Your task to perform on an android device: turn on bluetooth scan Image 0: 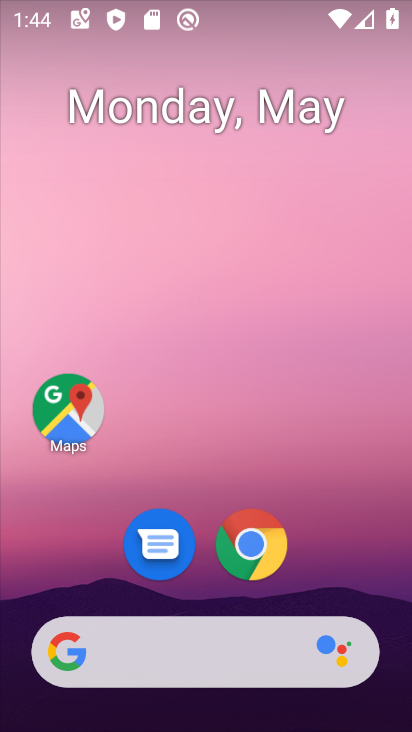
Step 0: drag from (368, 585) to (364, 266)
Your task to perform on an android device: turn on bluetooth scan Image 1: 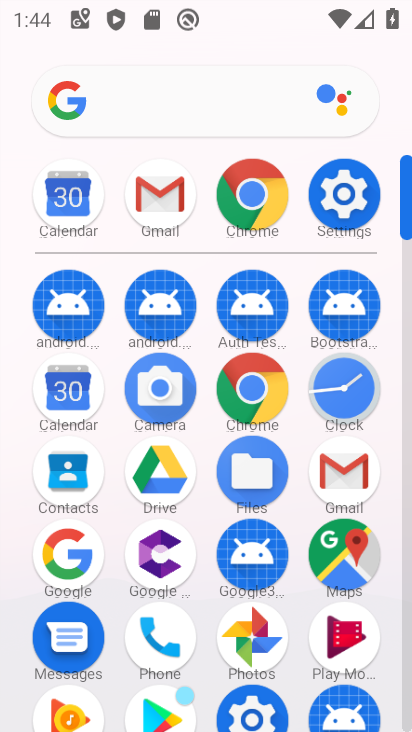
Step 1: click (348, 207)
Your task to perform on an android device: turn on bluetooth scan Image 2: 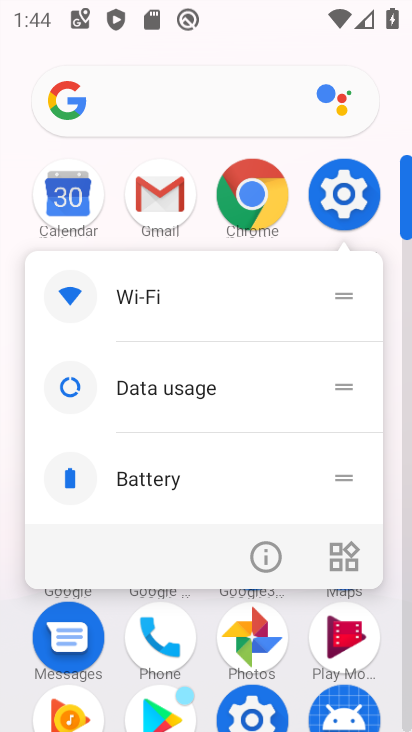
Step 2: click (348, 207)
Your task to perform on an android device: turn on bluetooth scan Image 3: 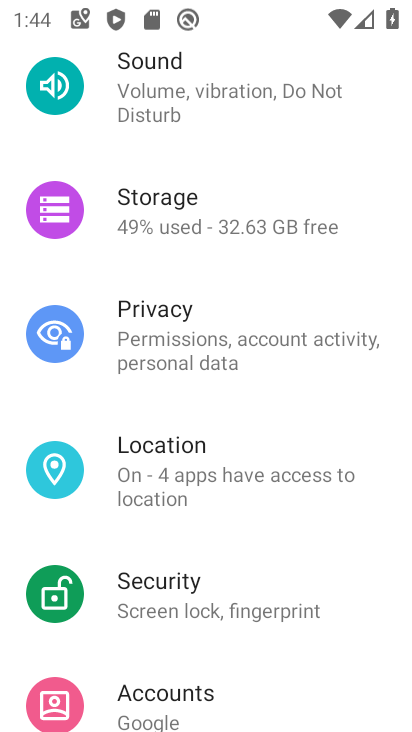
Step 3: drag from (368, 176) to (358, 287)
Your task to perform on an android device: turn on bluetooth scan Image 4: 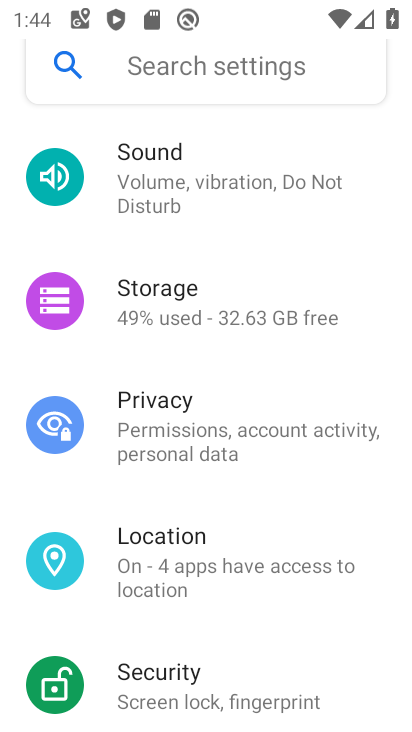
Step 4: drag from (354, 130) to (359, 355)
Your task to perform on an android device: turn on bluetooth scan Image 5: 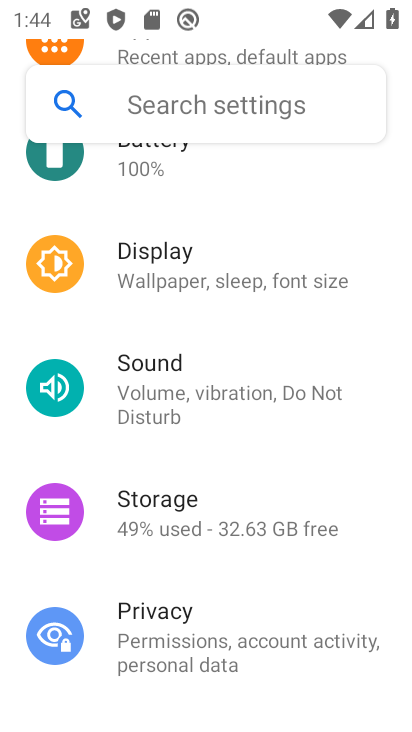
Step 5: drag from (358, 215) to (355, 347)
Your task to perform on an android device: turn on bluetooth scan Image 6: 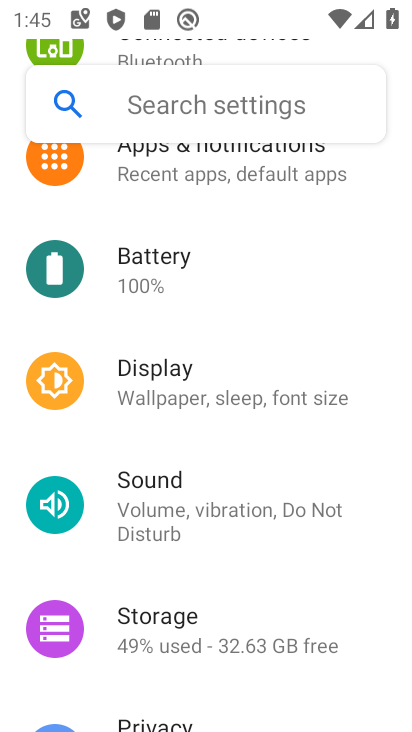
Step 6: drag from (363, 190) to (360, 315)
Your task to perform on an android device: turn on bluetooth scan Image 7: 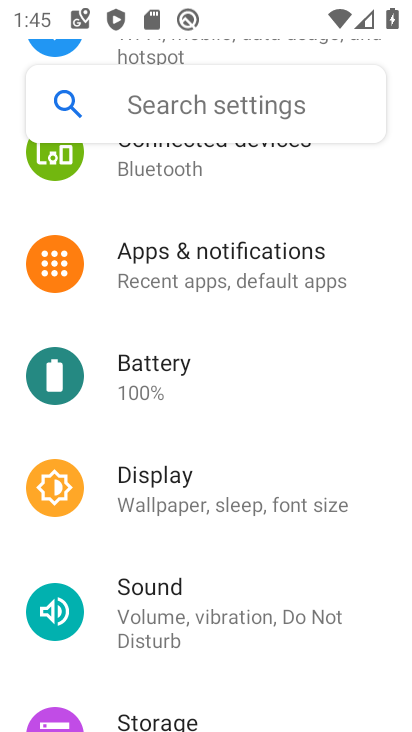
Step 7: drag from (346, 190) to (345, 348)
Your task to perform on an android device: turn on bluetooth scan Image 8: 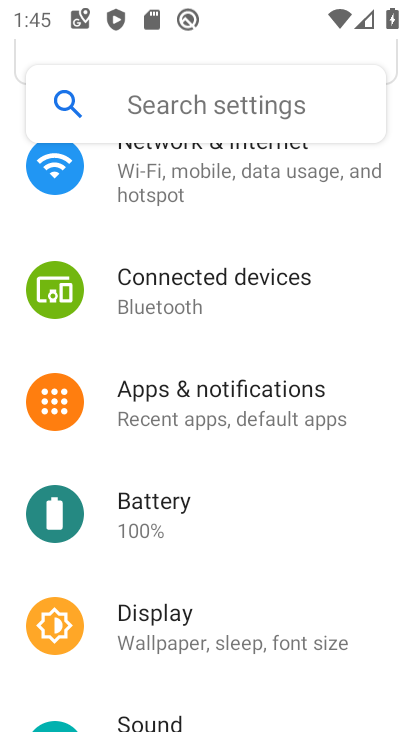
Step 8: drag from (343, 195) to (330, 365)
Your task to perform on an android device: turn on bluetooth scan Image 9: 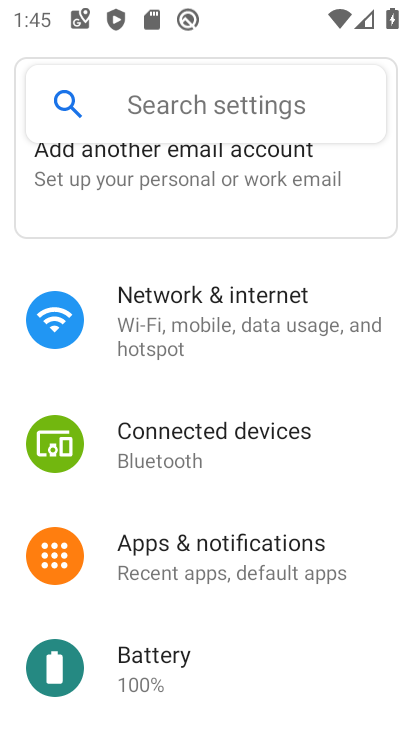
Step 9: drag from (331, 396) to (334, 263)
Your task to perform on an android device: turn on bluetooth scan Image 10: 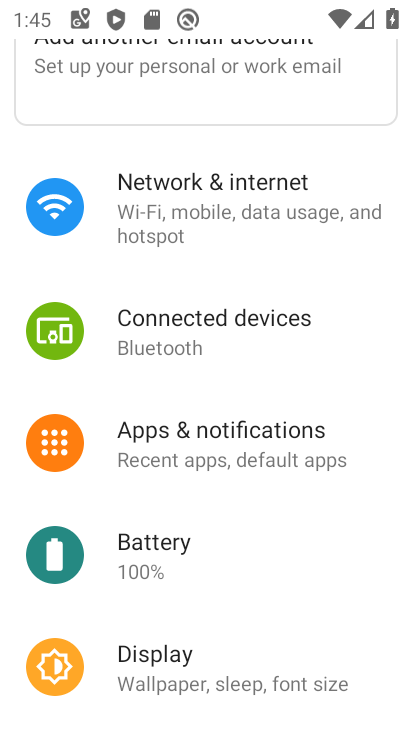
Step 10: drag from (329, 400) to (338, 212)
Your task to perform on an android device: turn on bluetooth scan Image 11: 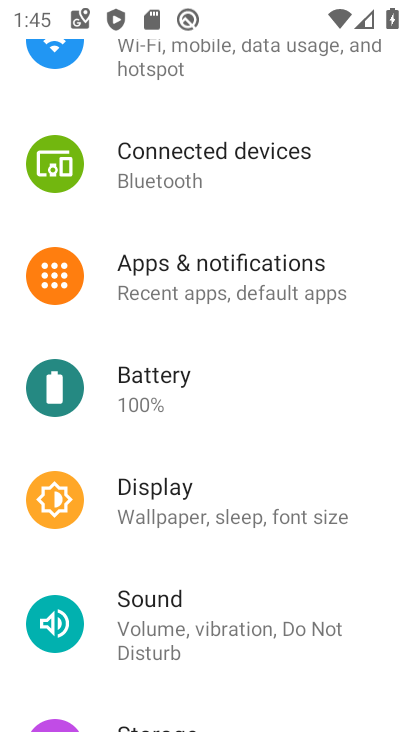
Step 11: drag from (321, 424) to (334, 329)
Your task to perform on an android device: turn on bluetooth scan Image 12: 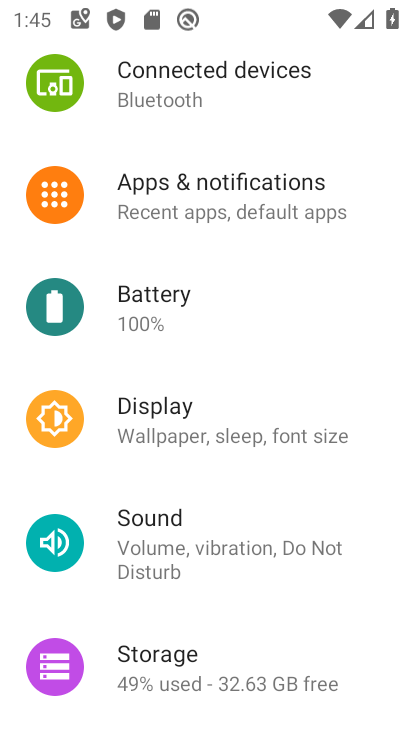
Step 12: drag from (322, 477) to (327, 355)
Your task to perform on an android device: turn on bluetooth scan Image 13: 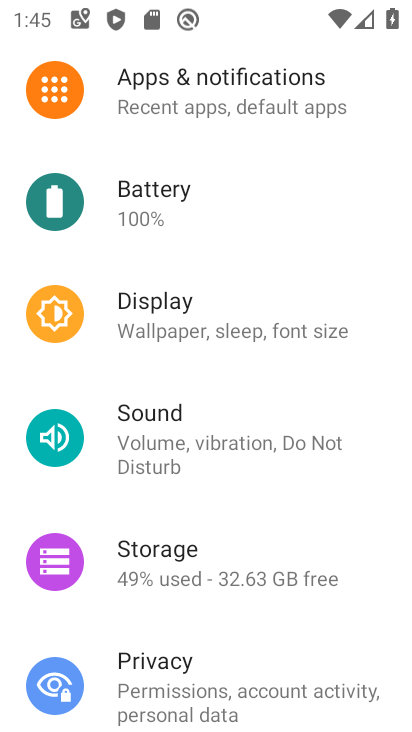
Step 13: drag from (323, 500) to (334, 387)
Your task to perform on an android device: turn on bluetooth scan Image 14: 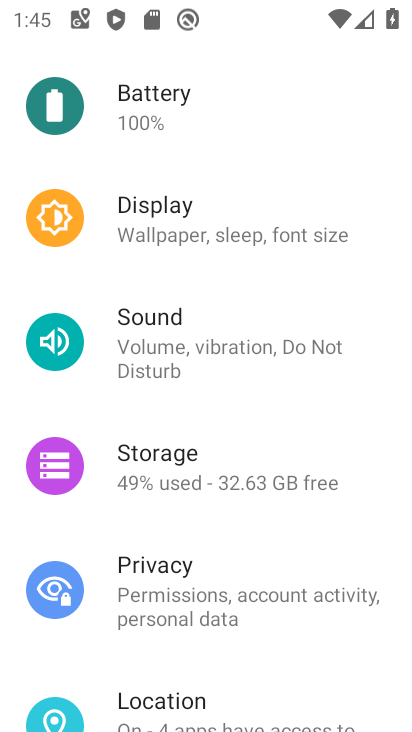
Step 14: drag from (323, 527) to (331, 411)
Your task to perform on an android device: turn on bluetooth scan Image 15: 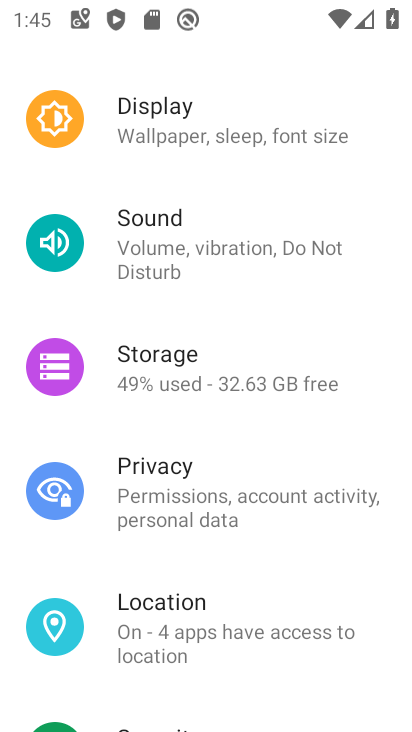
Step 15: drag from (329, 567) to (334, 438)
Your task to perform on an android device: turn on bluetooth scan Image 16: 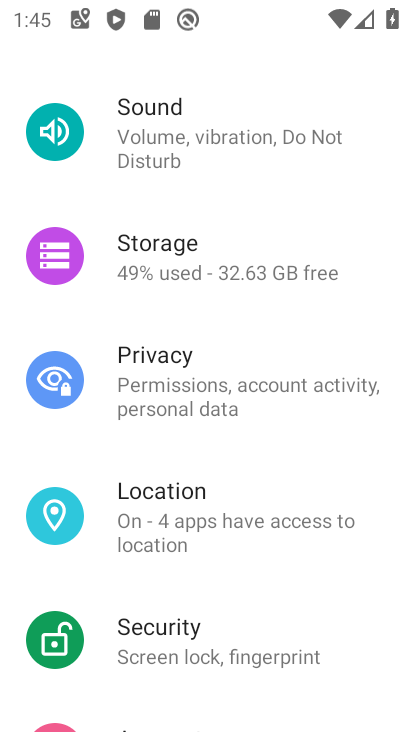
Step 16: drag from (321, 591) to (332, 457)
Your task to perform on an android device: turn on bluetooth scan Image 17: 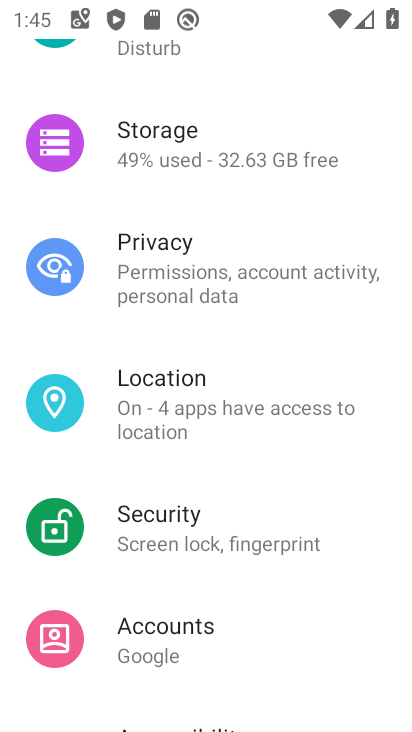
Step 17: click (236, 404)
Your task to perform on an android device: turn on bluetooth scan Image 18: 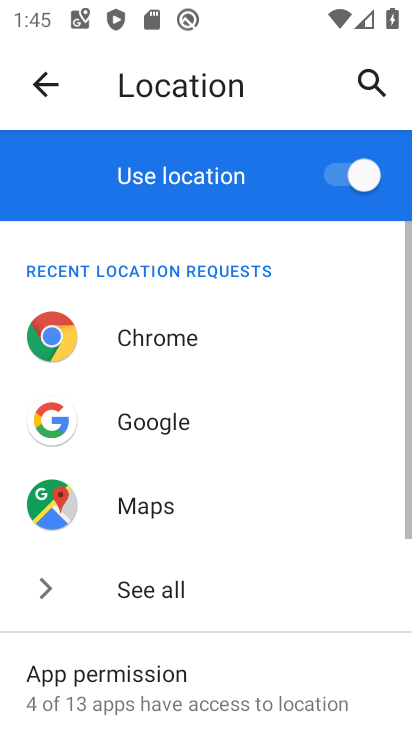
Step 18: drag from (283, 537) to (287, 385)
Your task to perform on an android device: turn on bluetooth scan Image 19: 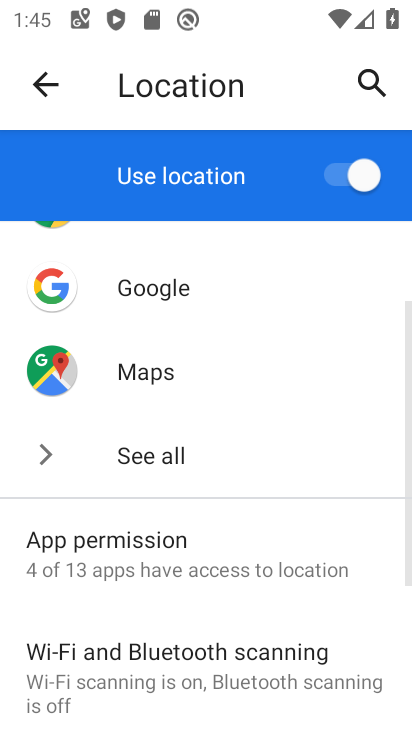
Step 19: drag from (274, 512) to (295, 396)
Your task to perform on an android device: turn on bluetooth scan Image 20: 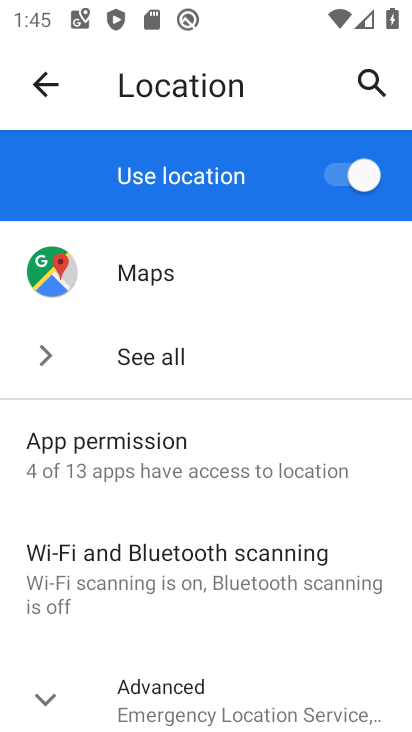
Step 20: click (259, 573)
Your task to perform on an android device: turn on bluetooth scan Image 21: 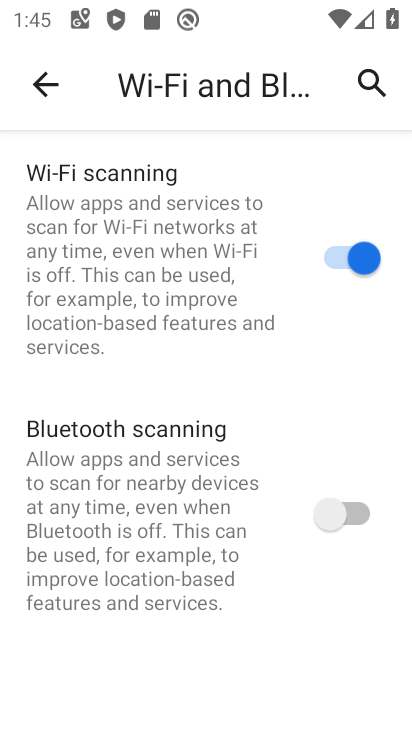
Step 21: click (329, 528)
Your task to perform on an android device: turn on bluetooth scan Image 22: 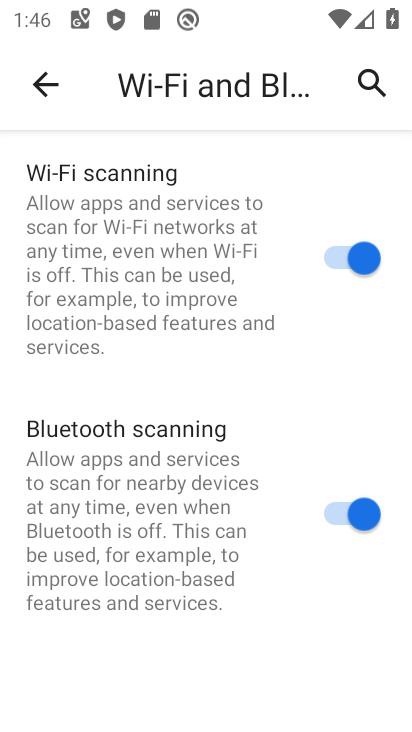
Step 22: task complete